Your task to perform on an android device: Search for sushi restaurants on Maps Image 0: 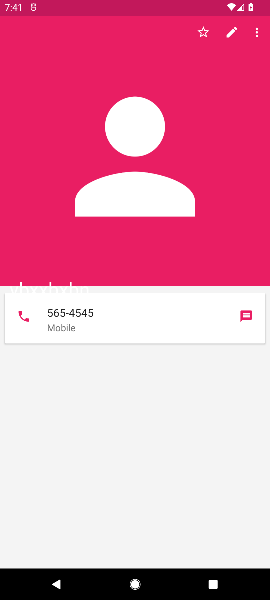
Step 0: press home button
Your task to perform on an android device: Search for sushi restaurants on Maps Image 1: 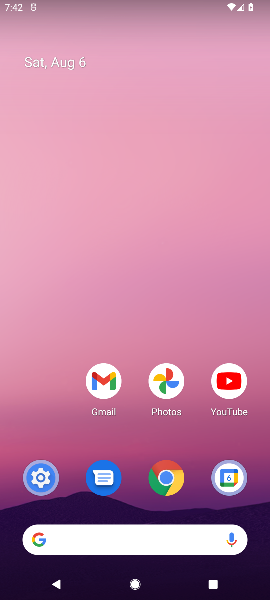
Step 1: drag from (59, 425) to (60, 185)
Your task to perform on an android device: Search for sushi restaurants on Maps Image 2: 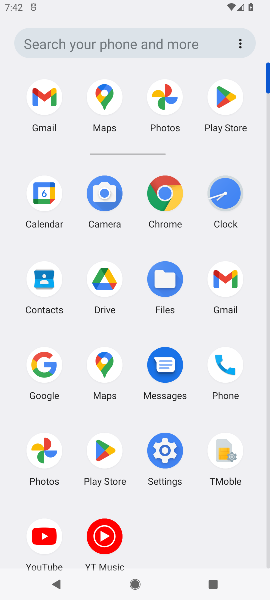
Step 2: click (101, 97)
Your task to perform on an android device: Search for sushi restaurants on Maps Image 3: 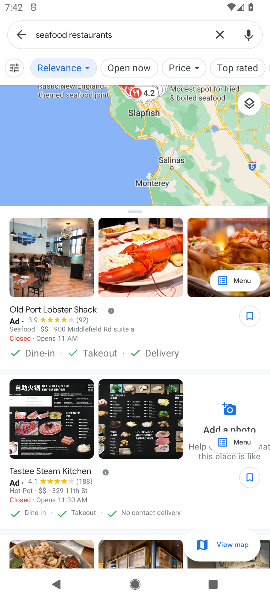
Step 3: click (219, 29)
Your task to perform on an android device: Search for sushi restaurants on Maps Image 4: 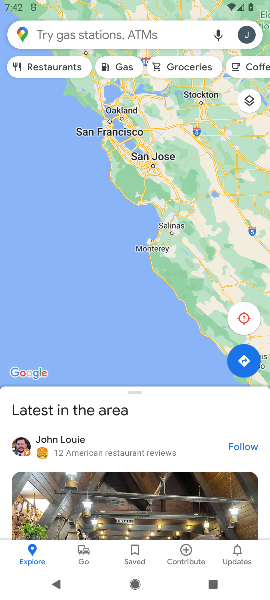
Step 4: type " sushi restaurants"
Your task to perform on an android device: Search for sushi restaurants on Maps Image 5: 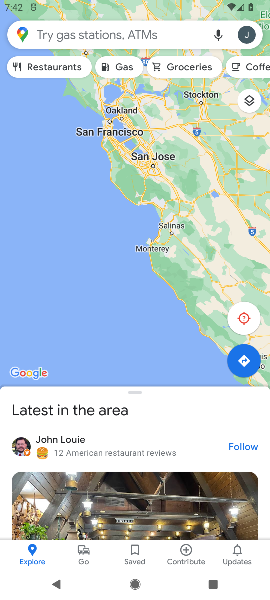
Step 5: click (50, 32)
Your task to perform on an android device: Search for sushi restaurants on Maps Image 6: 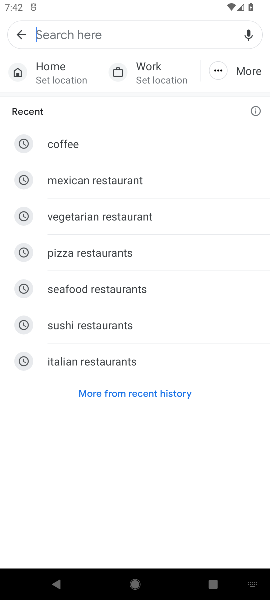
Step 6: click (78, 324)
Your task to perform on an android device: Search for sushi restaurants on Maps Image 7: 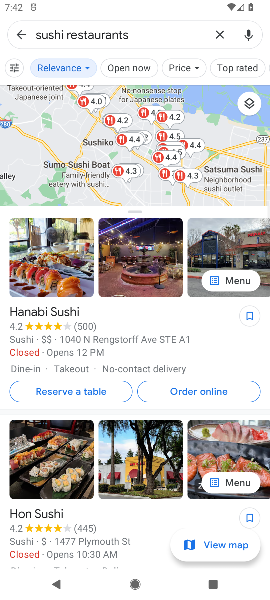
Step 7: task complete